Your task to perform on an android device: What is the news today? Image 0: 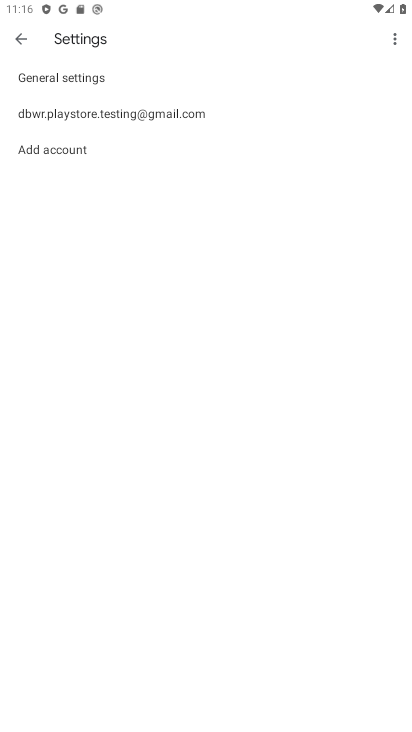
Step 0: drag from (137, 562) to (248, 255)
Your task to perform on an android device: What is the news today? Image 1: 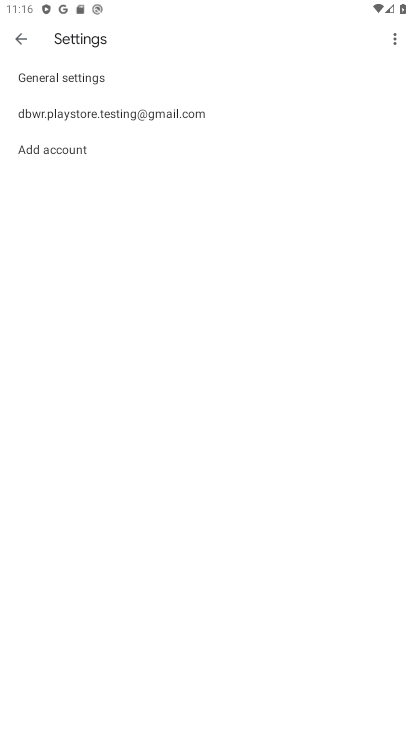
Step 1: press home button
Your task to perform on an android device: What is the news today? Image 2: 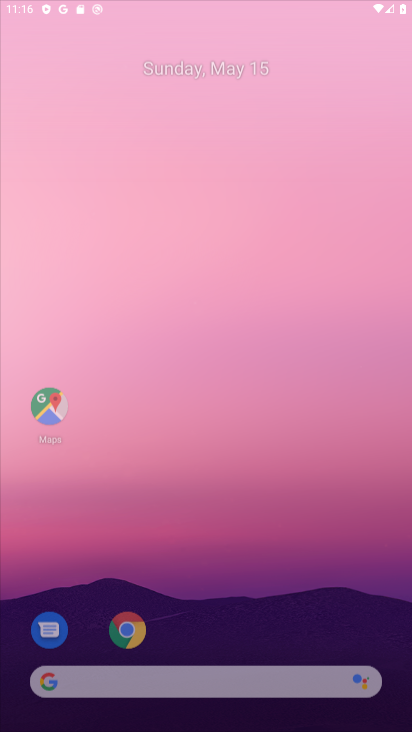
Step 2: drag from (214, 645) to (286, 124)
Your task to perform on an android device: What is the news today? Image 3: 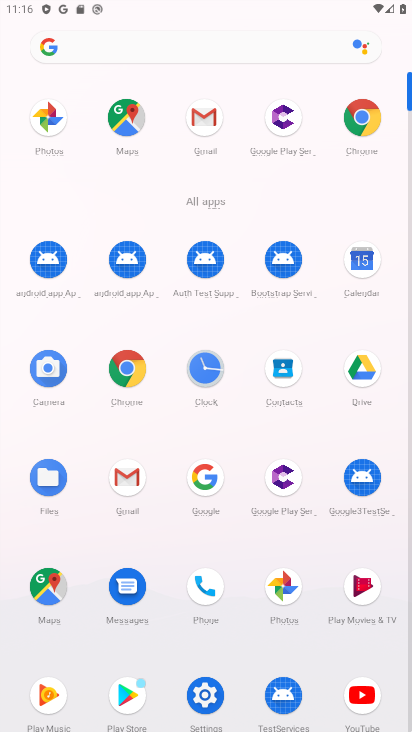
Step 3: click (183, 38)
Your task to perform on an android device: What is the news today? Image 4: 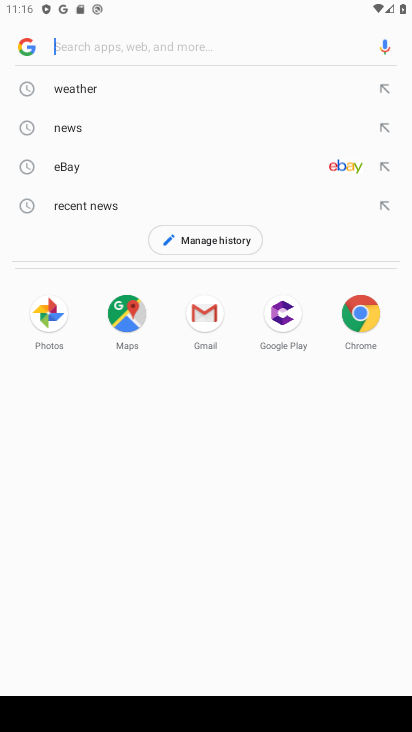
Step 4: type "news today"
Your task to perform on an android device: What is the news today? Image 5: 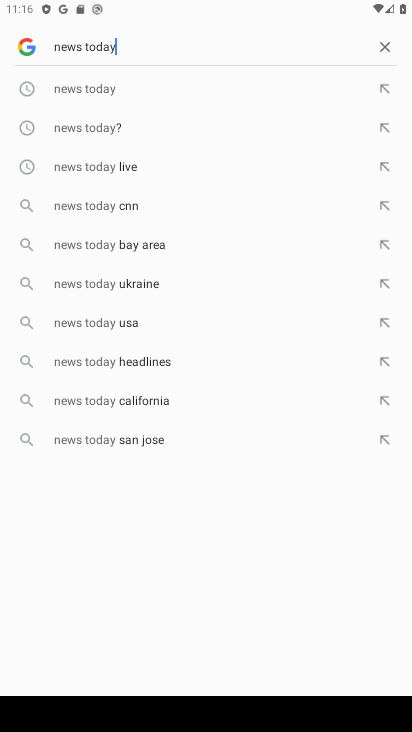
Step 5: click (213, 92)
Your task to perform on an android device: What is the news today? Image 6: 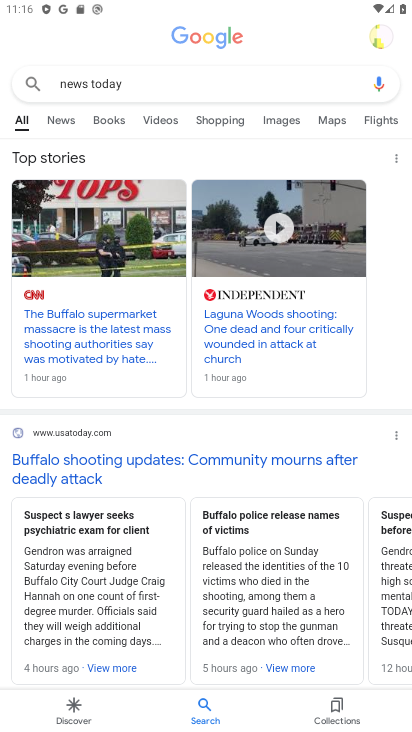
Step 6: task complete